Your task to perform on an android device: delete browsing data in the chrome app Image 0: 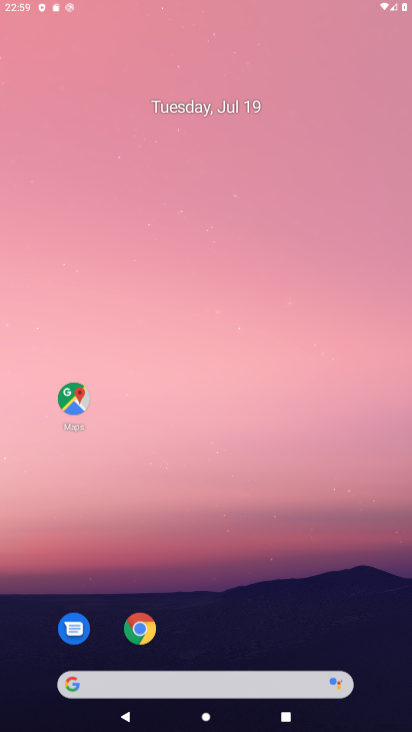
Step 0: press home button
Your task to perform on an android device: delete browsing data in the chrome app Image 1: 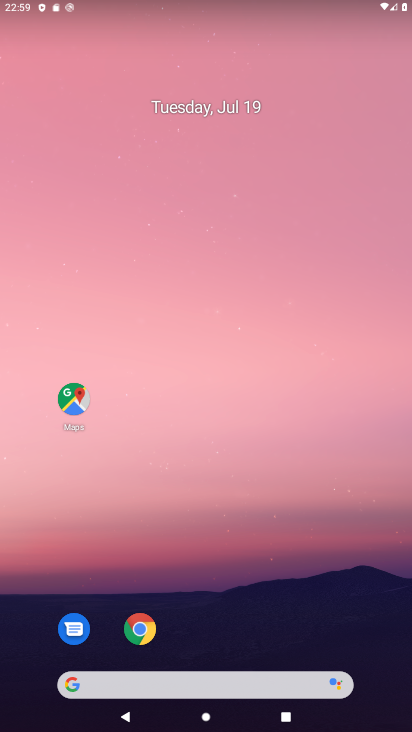
Step 1: click (136, 624)
Your task to perform on an android device: delete browsing data in the chrome app Image 2: 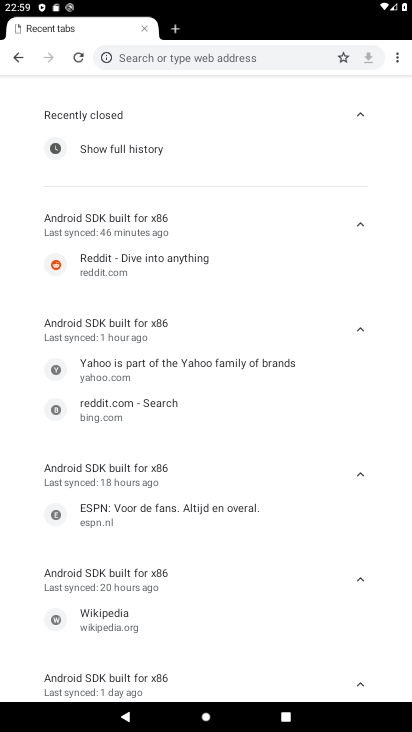
Step 2: click (398, 53)
Your task to perform on an android device: delete browsing data in the chrome app Image 3: 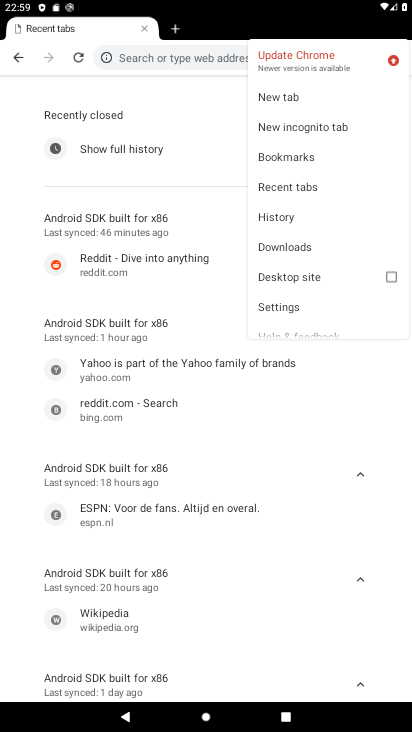
Step 3: click (297, 216)
Your task to perform on an android device: delete browsing data in the chrome app Image 4: 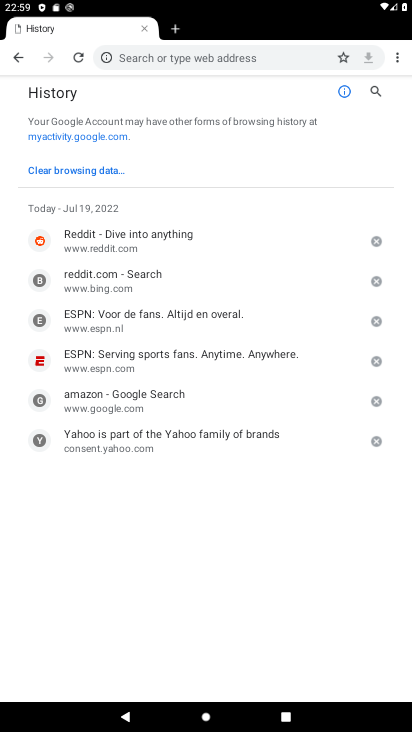
Step 4: click (90, 166)
Your task to perform on an android device: delete browsing data in the chrome app Image 5: 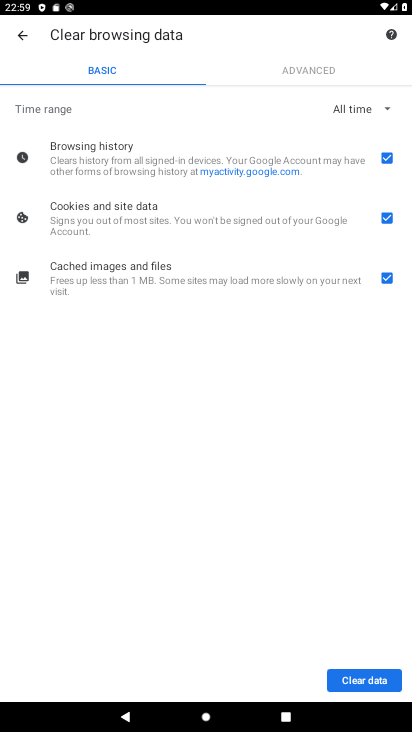
Step 5: click (368, 674)
Your task to perform on an android device: delete browsing data in the chrome app Image 6: 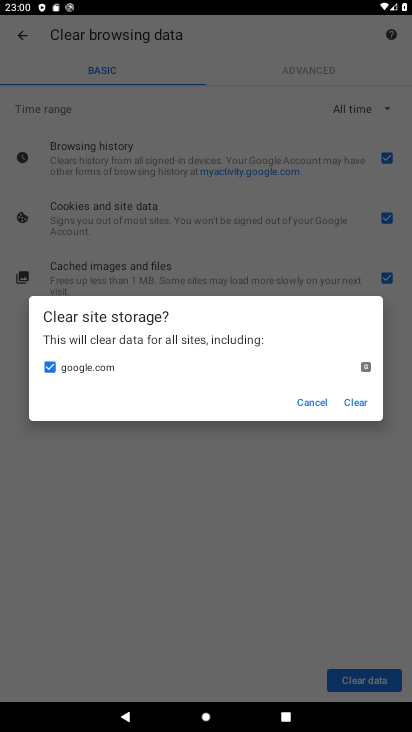
Step 6: click (363, 407)
Your task to perform on an android device: delete browsing data in the chrome app Image 7: 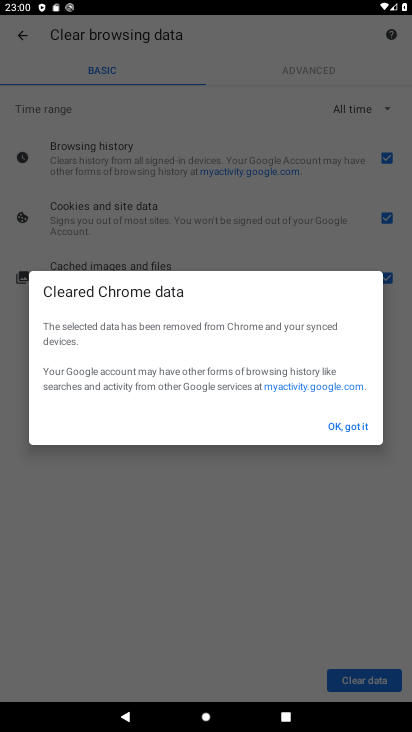
Step 7: click (345, 422)
Your task to perform on an android device: delete browsing data in the chrome app Image 8: 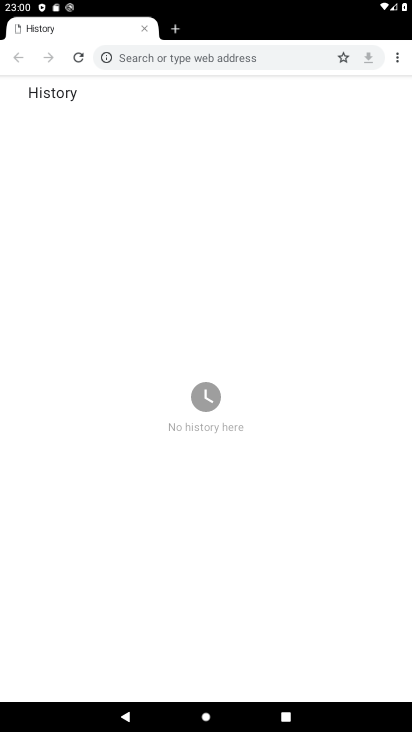
Step 8: task complete